Your task to perform on an android device: Go to Reddit.com Image 0: 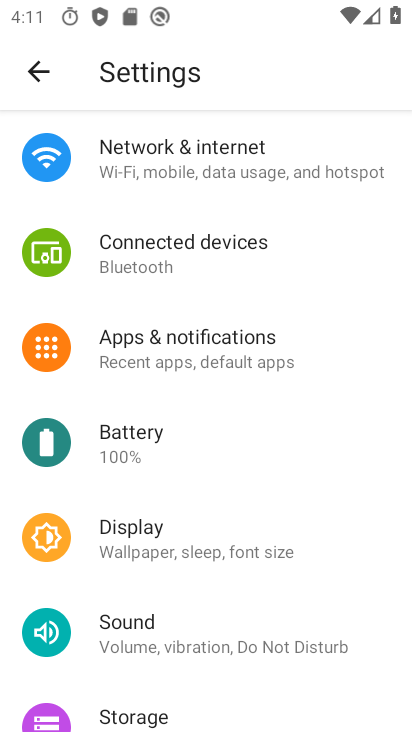
Step 0: press home button
Your task to perform on an android device: Go to Reddit.com Image 1: 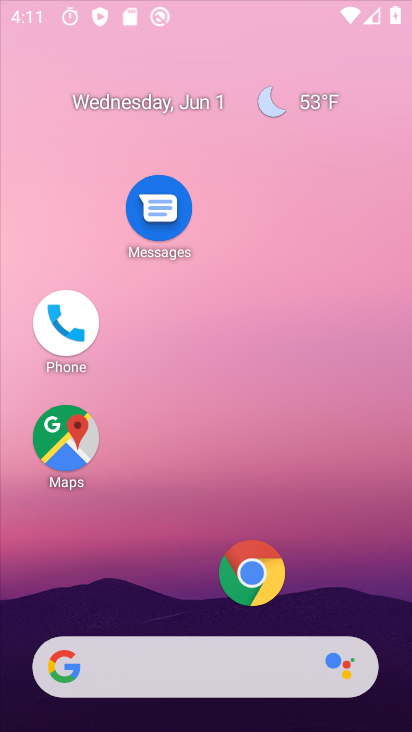
Step 1: click (258, 473)
Your task to perform on an android device: Go to Reddit.com Image 2: 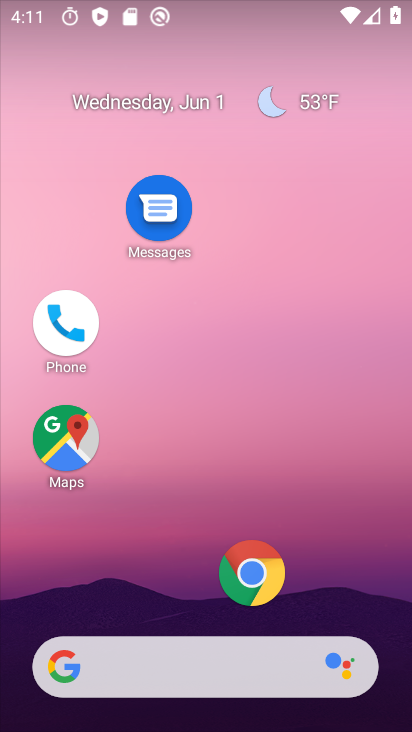
Step 2: click (179, 662)
Your task to perform on an android device: Go to Reddit.com Image 3: 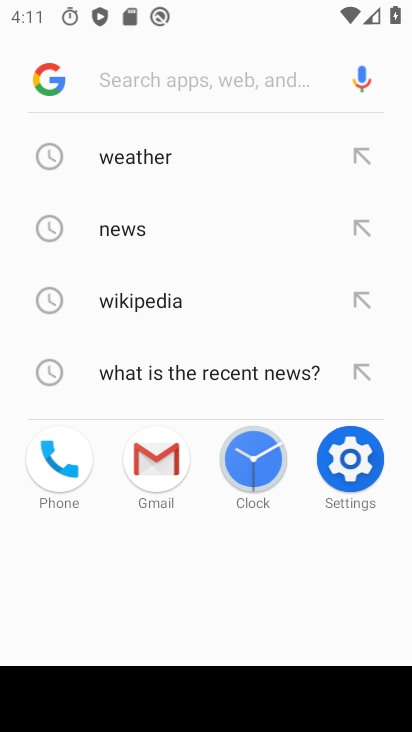
Step 3: type "reddit"
Your task to perform on an android device: Go to Reddit.com Image 4: 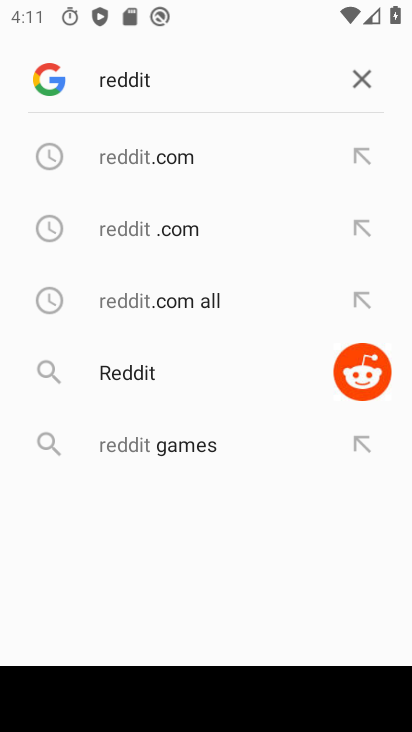
Step 4: click (200, 171)
Your task to perform on an android device: Go to Reddit.com Image 5: 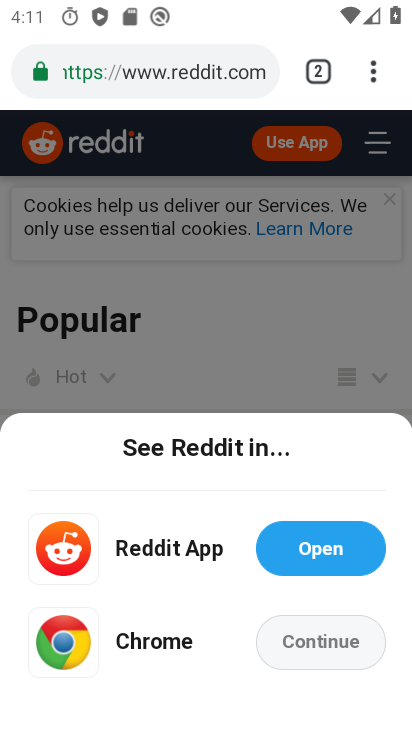
Step 5: task complete